Your task to perform on an android device: clear all cookies in the chrome app Image 0: 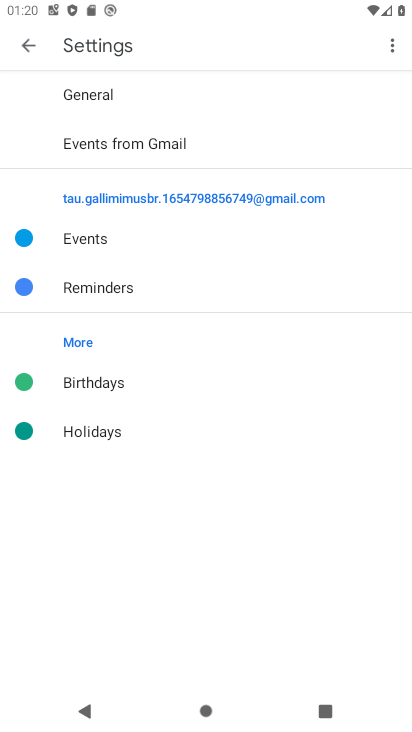
Step 0: press home button
Your task to perform on an android device: clear all cookies in the chrome app Image 1: 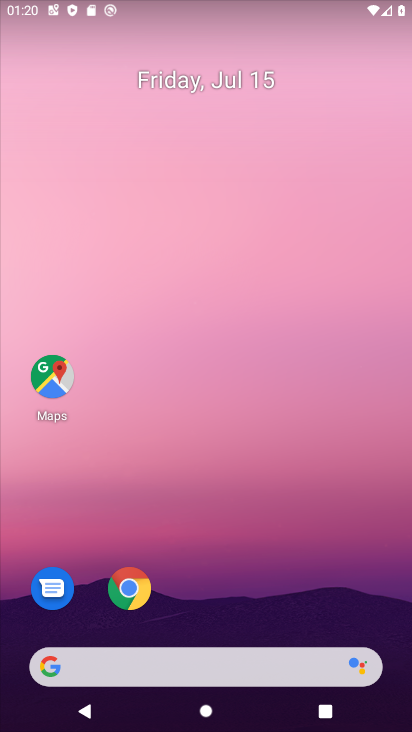
Step 1: click (125, 585)
Your task to perform on an android device: clear all cookies in the chrome app Image 2: 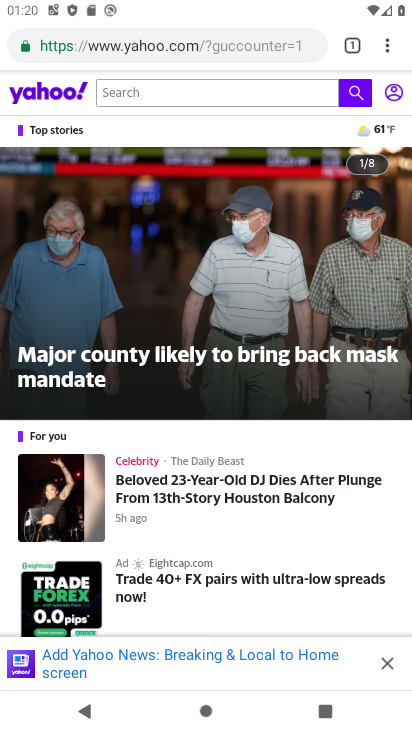
Step 2: click (389, 54)
Your task to perform on an android device: clear all cookies in the chrome app Image 3: 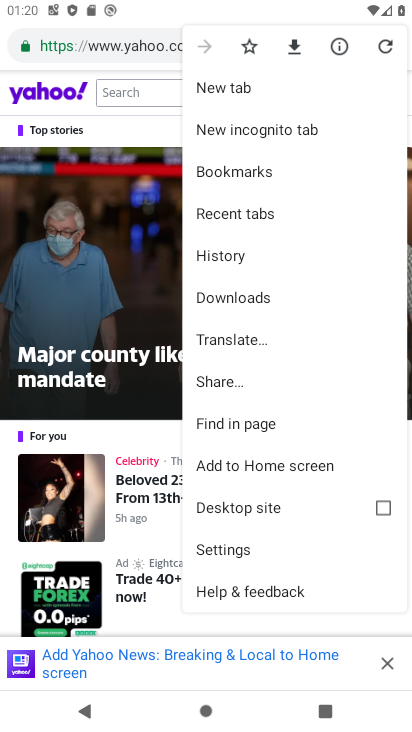
Step 3: click (226, 261)
Your task to perform on an android device: clear all cookies in the chrome app Image 4: 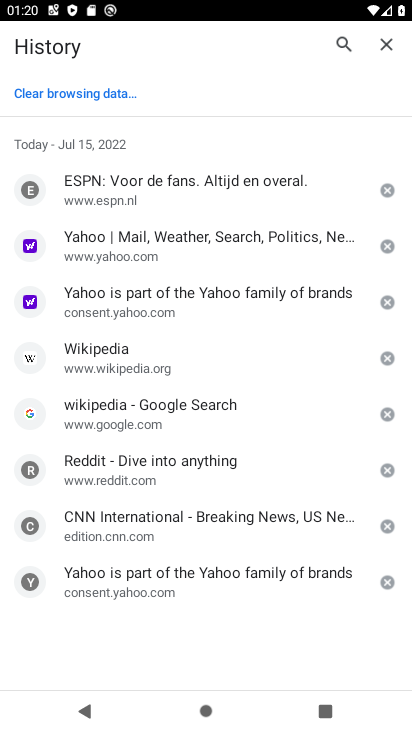
Step 4: click (65, 98)
Your task to perform on an android device: clear all cookies in the chrome app Image 5: 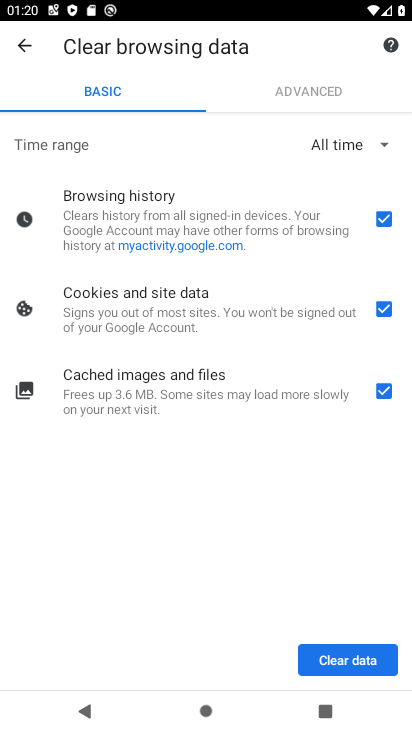
Step 5: click (381, 219)
Your task to perform on an android device: clear all cookies in the chrome app Image 6: 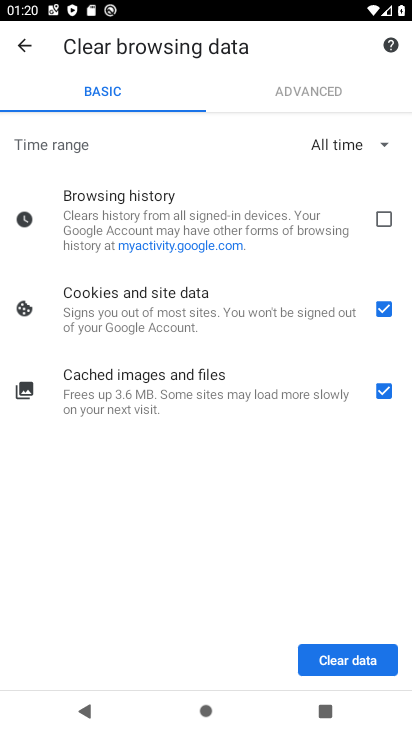
Step 6: click (384, 392)
Your task to perform on an android device: clear all cookies in the chrome app Image 7: 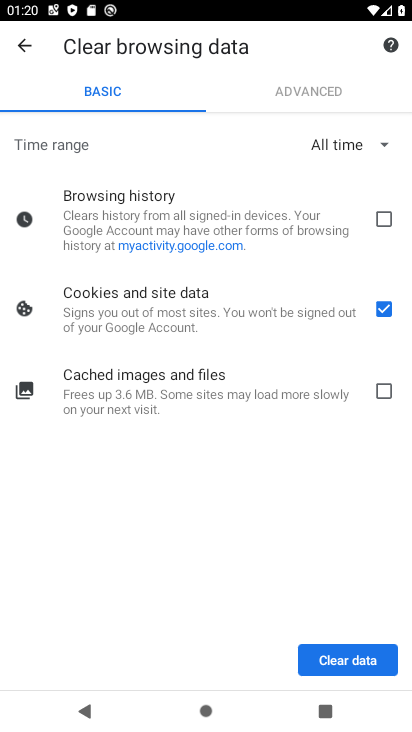
Step 7: click (345, 653)
Your task to perform on an android device: clear all cookies in the chrome app Image 8: 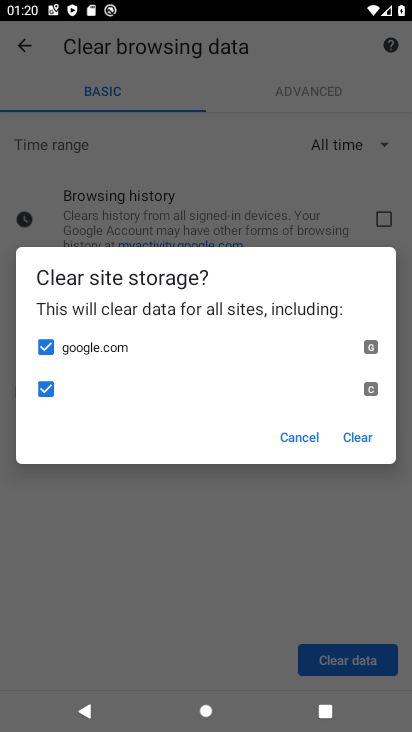
Step 8: click (356, 433)
Your task to perform on an android device: clear all cookies in the chrome app Image 9: 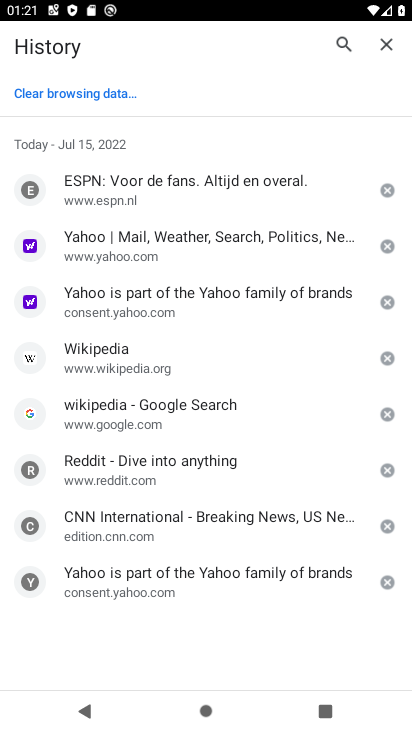
Step 9: task complete